Your task to perform on an android device: toggle data saver in the chrome app Image 0: 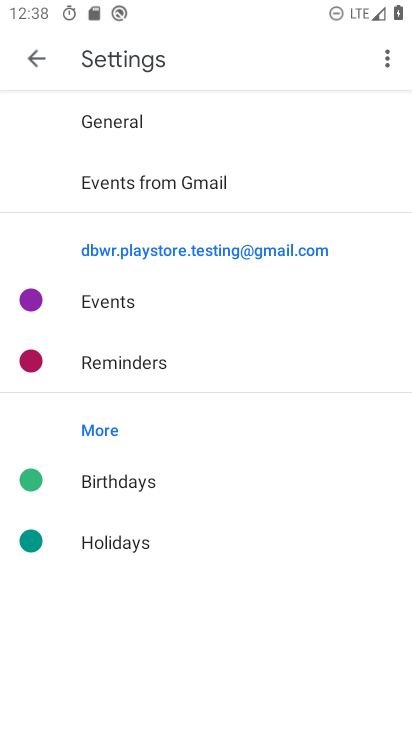
Step 0: press home button
Your task to perform on an android device: toggle data saver in the chrome app Image 1: 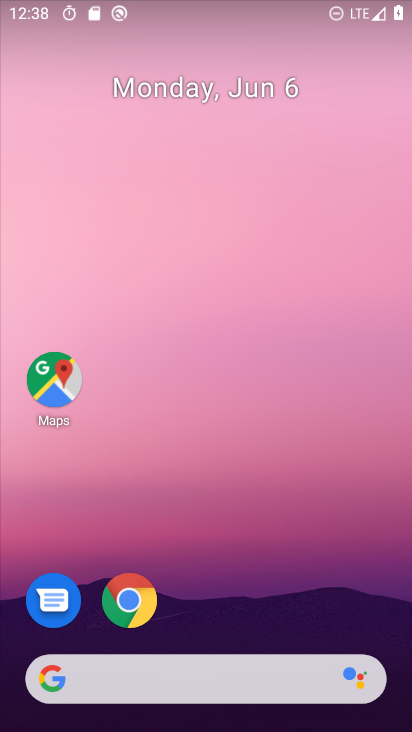
Step 1: click (133, 602)
Your task to perform on an android device: toggle data saver in the chrome app Image 2: 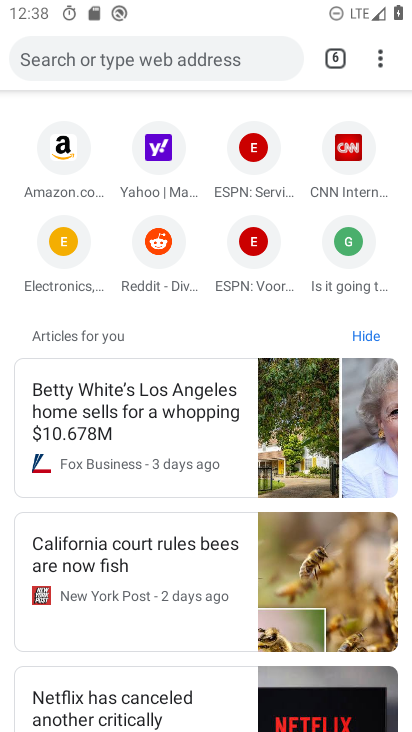
Step 2: click (381, 62)
Your task to perform on an android device: toggle data saver in the chrome app Image 3: 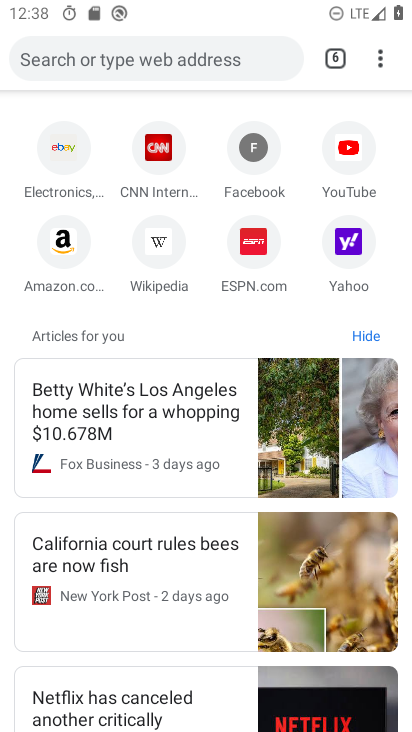
Step 3: drag from (381, 62) to (217, 506)
Your task to perform on an android device: toggle data saver in the chrome app Image 4: 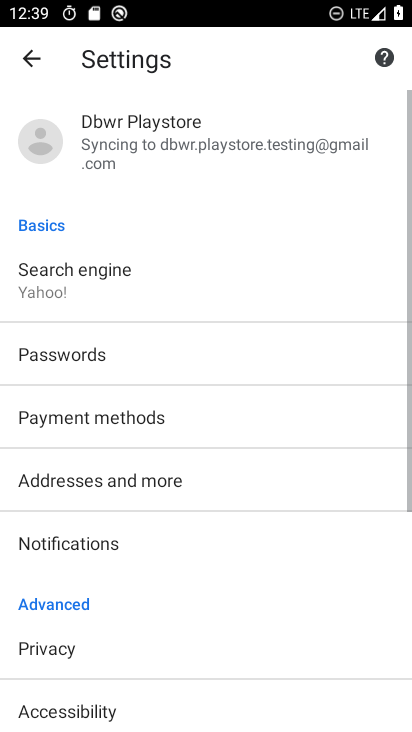
Step 4: drag from (281, 615) to (287, 457)
Your task to perform on an android device: toggle data saver in the chrome app Image 5: 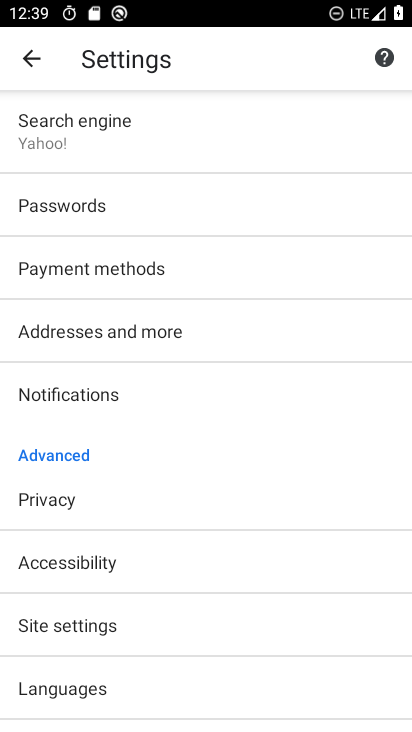
Step 5: drag from (184, 397) to (288, 235)
Your task to perform on an android device: toggle data saver in the chrome app Image 6: 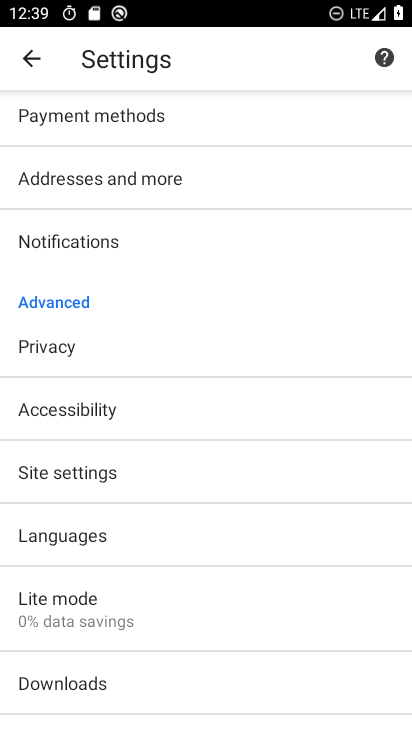
Step 6: click (131, 590)
Your task to perform on an android device: toggle data saver in the chrome app Image 7: 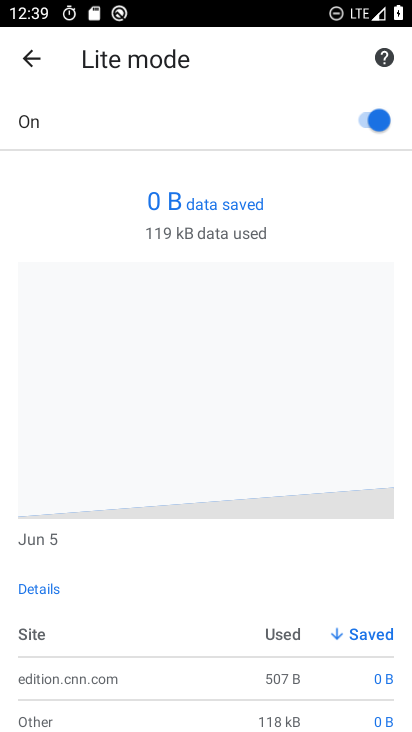
Step 7: task complete